Your task to perform on an android device: check data usage Image 0: 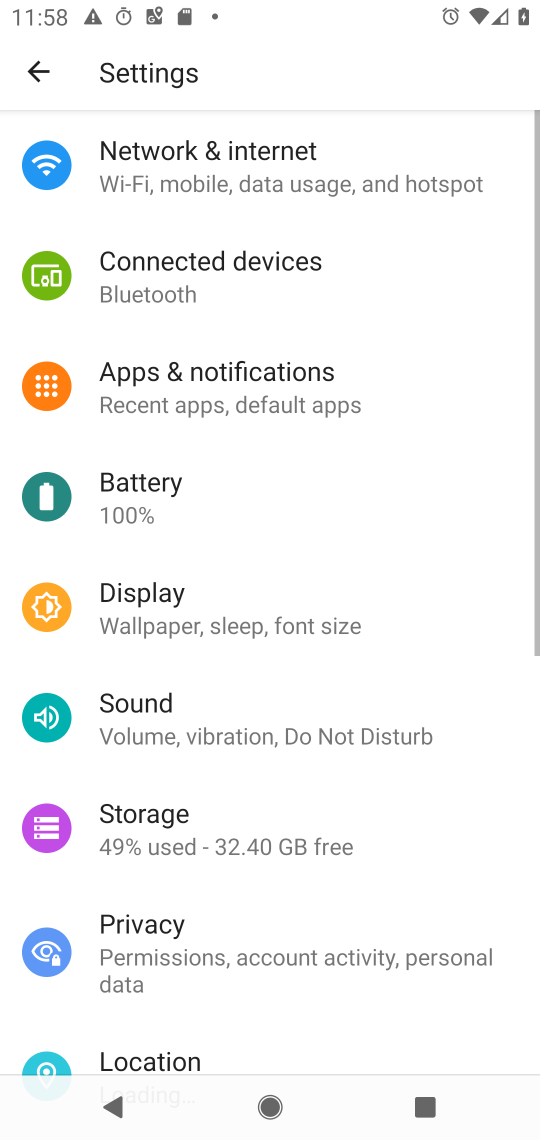
Step 0: press home button
Your task to perform on an android device: check data usage Image 1: 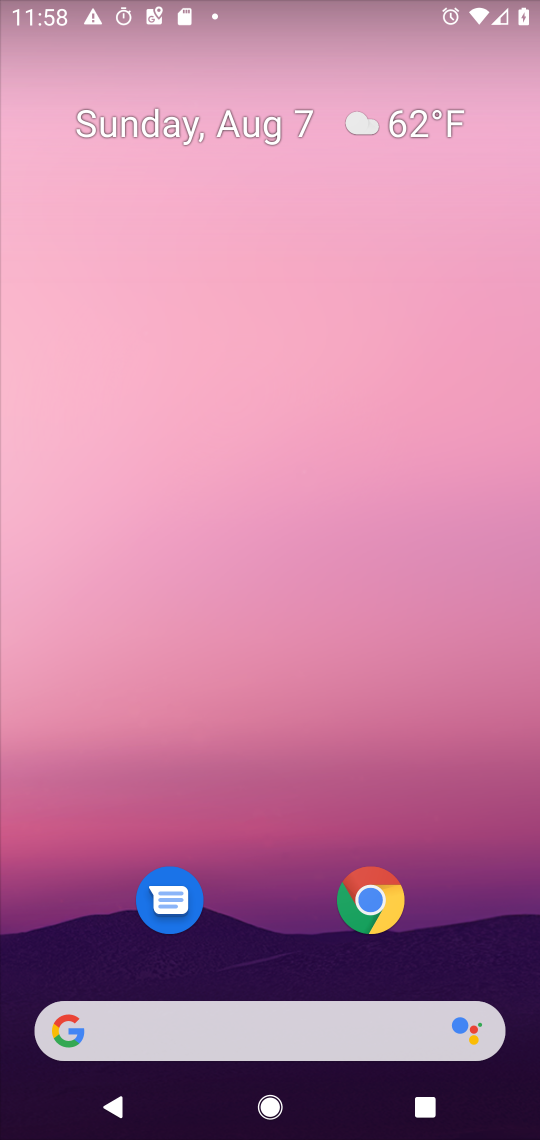
Step 1: press home button
Your task to perform on an android device: check data usage Image 2: 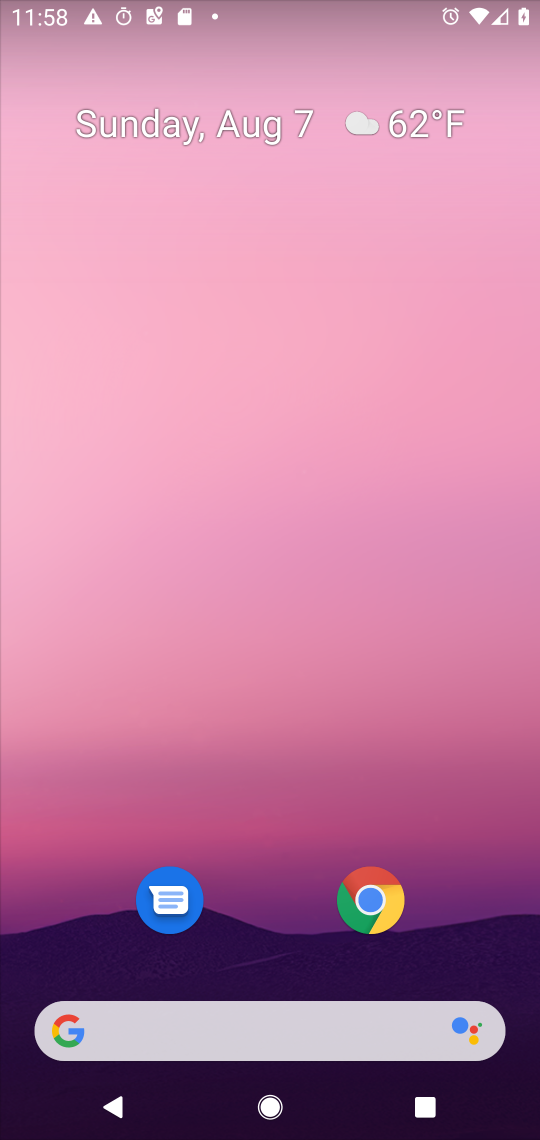
Step 2: drag from (261, 959) to (284, 271)
Your task to perform on an android device: check data usage Image 3: 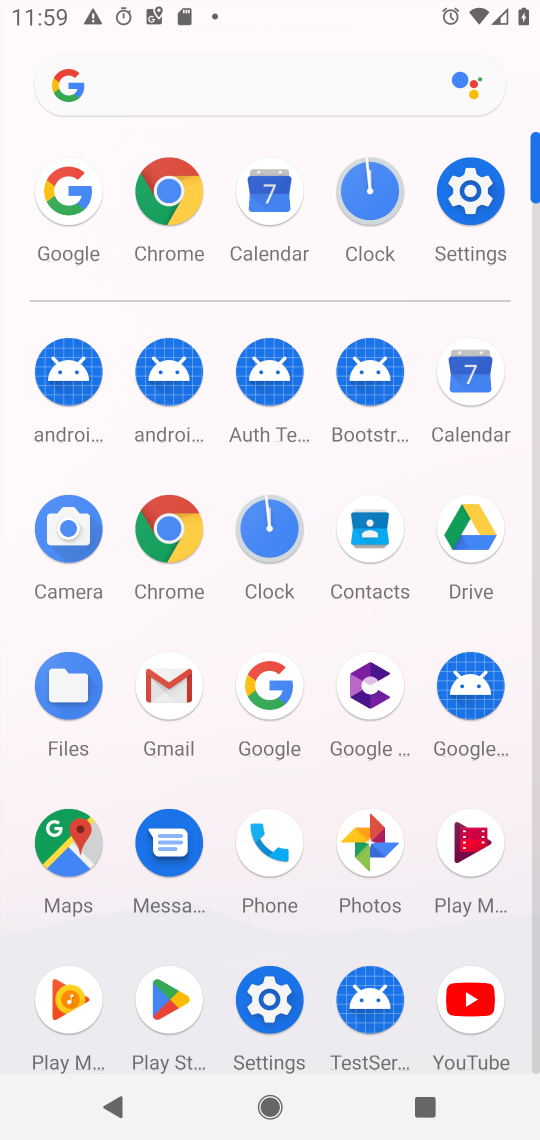
Step 3: click (470, 184)
Your task to perform on an android device: check data usage Image 4: 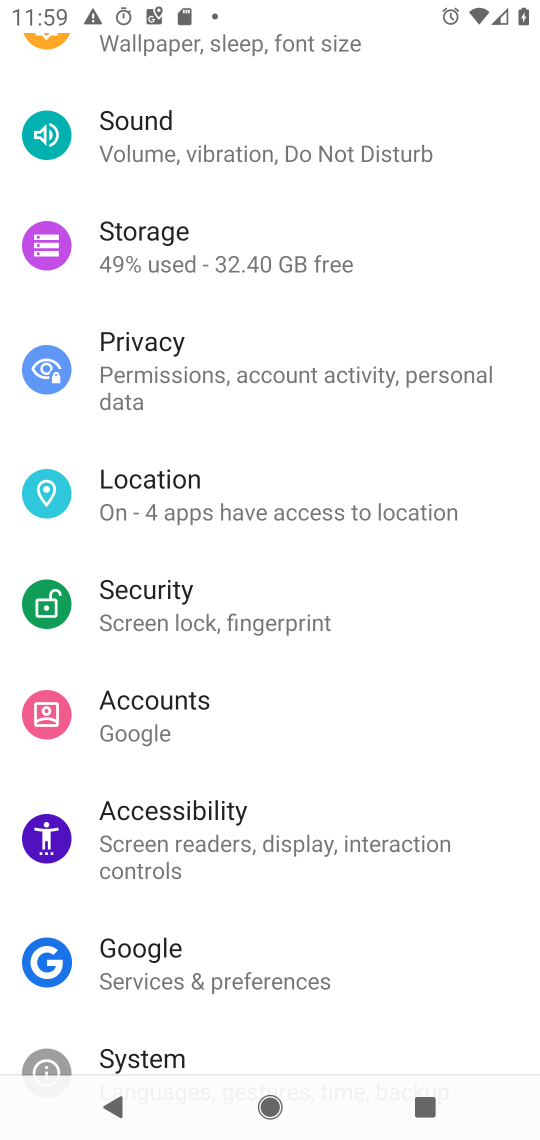
Step 4: drag from (211, 139) to (245, 981)
Your task to perform on an android device: check data usage Image 5: 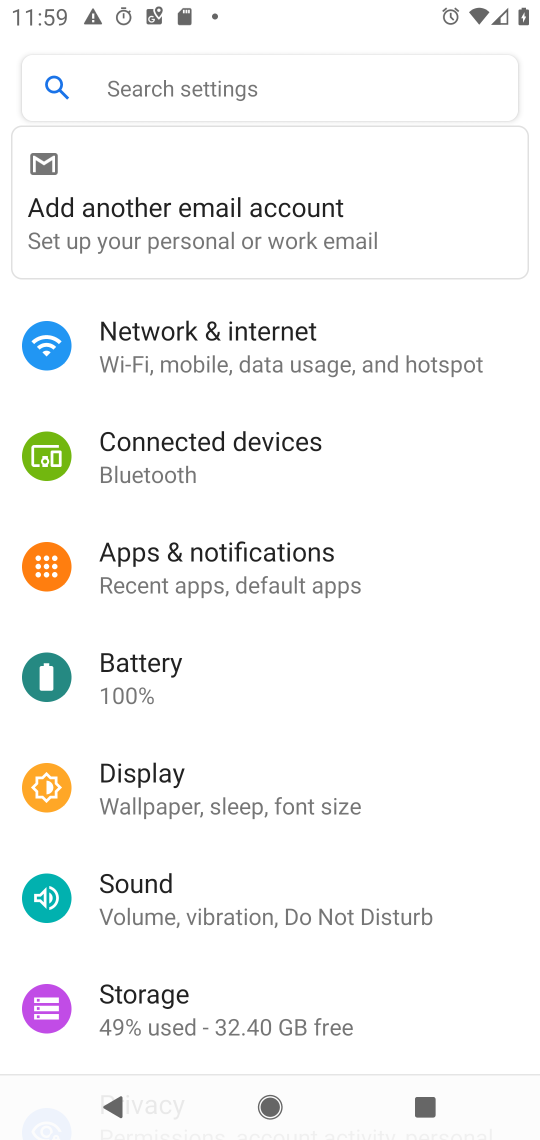
Step 5: click (218, 354)
Your task to perform on an android device: check data usage Image 6: 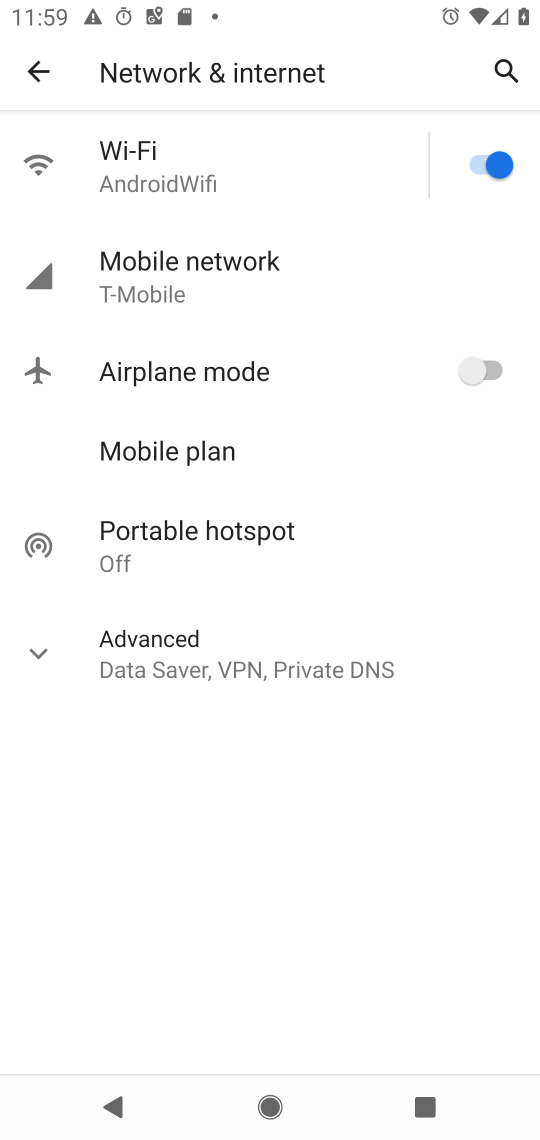
Step 6: click (173, 273)
Your task to perform on an android device: check data usage Image 7: 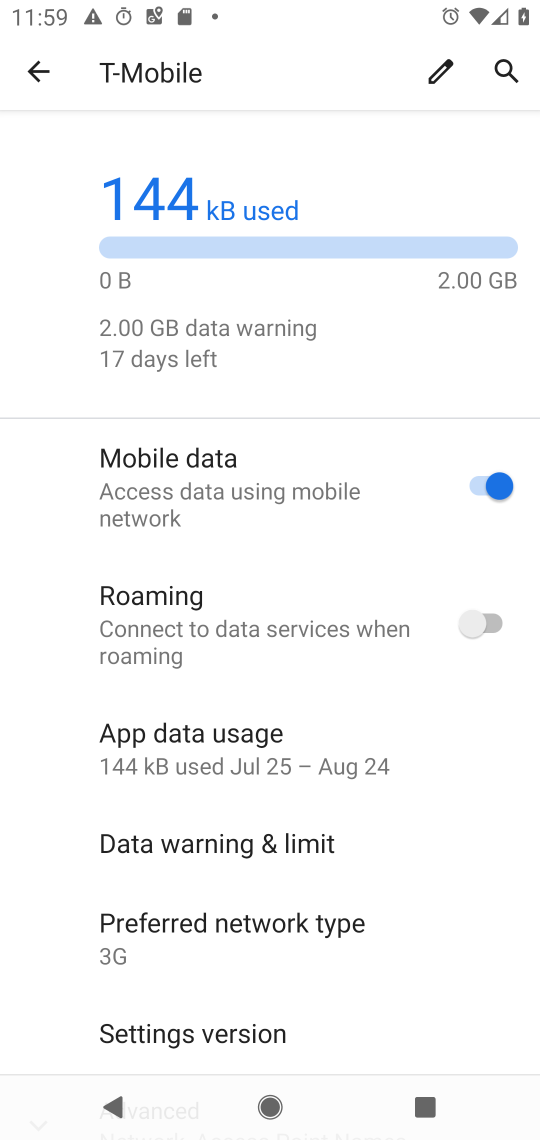
Step 7: click (274, 729)
Your task to perform on an android device: check data usage Image 8: 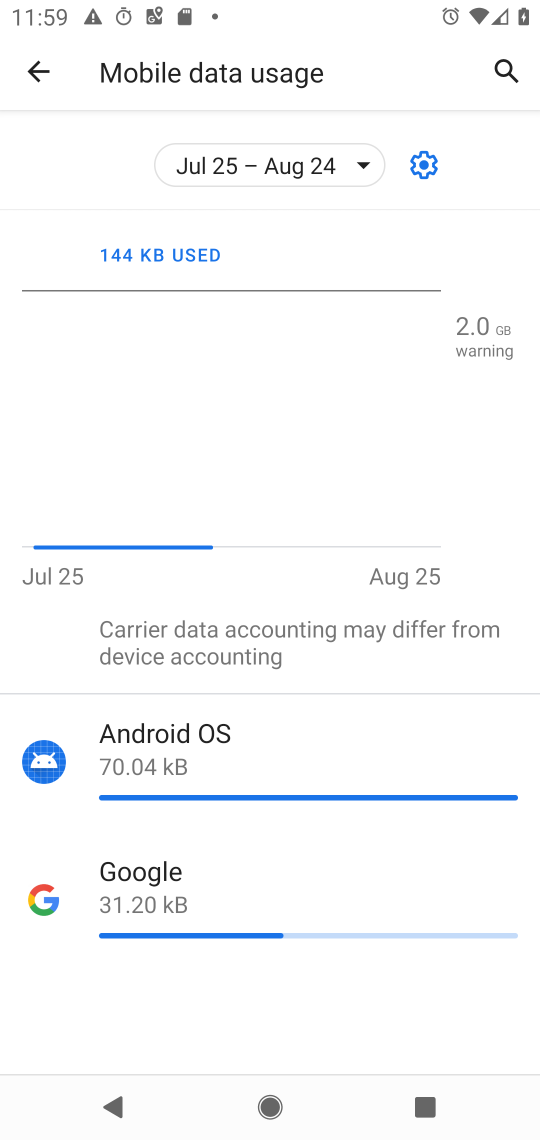
Step 8: task complete